Your task to perform on an android device: Go to Yahoo.com Image 0: 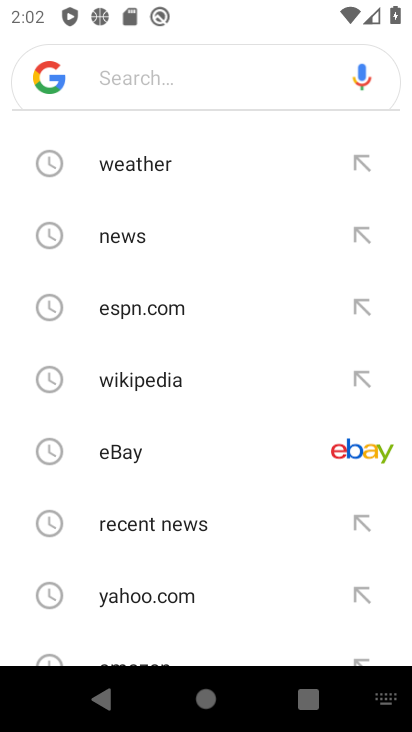
Step 0: press home button
Your task to perform on an android device: Go to Yahoo.com Image 1: 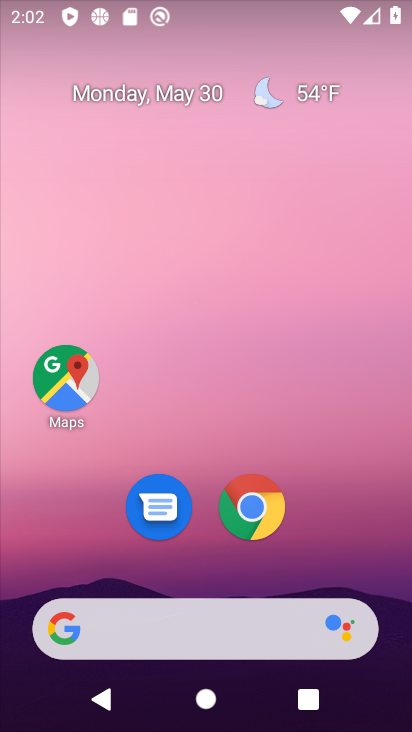
Step 1: drag from (387, 644) to (333, 45)
Your task to perform on an android device: Go to Yahoo.com Image 2: 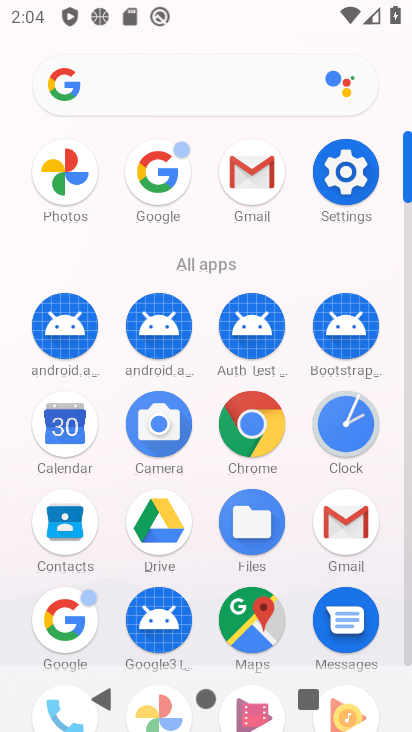
Step 2: click (57, 605)
Your task to perform on an android device: Go to Yahoo.com Image 3: 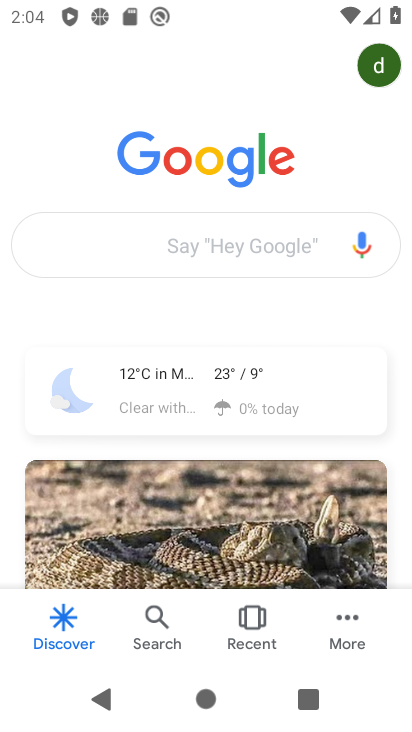
Step 3: click (212, 236)
Your task to perform on an android device: Go to Yahoo.com Image 4: 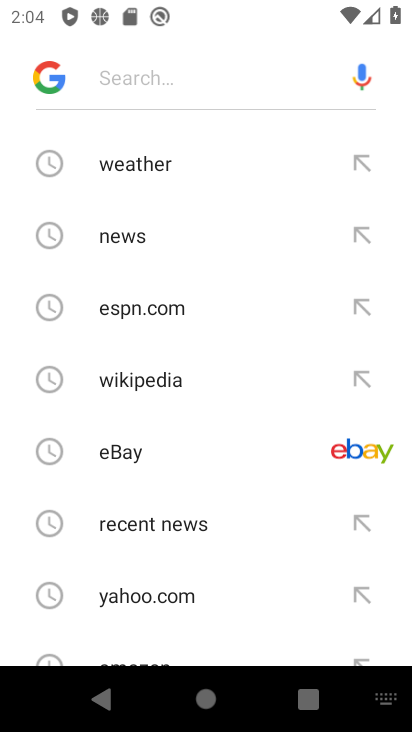
Step 4: click (148, 578)
Your task to perform on an android device: Go to Yahoo.com Image 5: 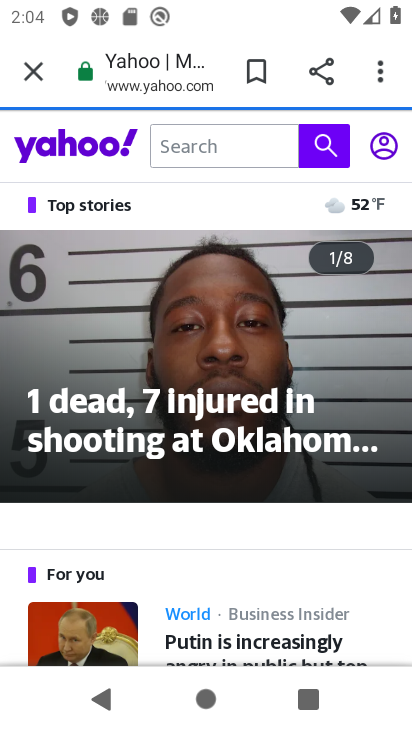
Step 5: task complete